Your task to perform on an android device: Search for vegetarian restaurants on Maps Image 0: 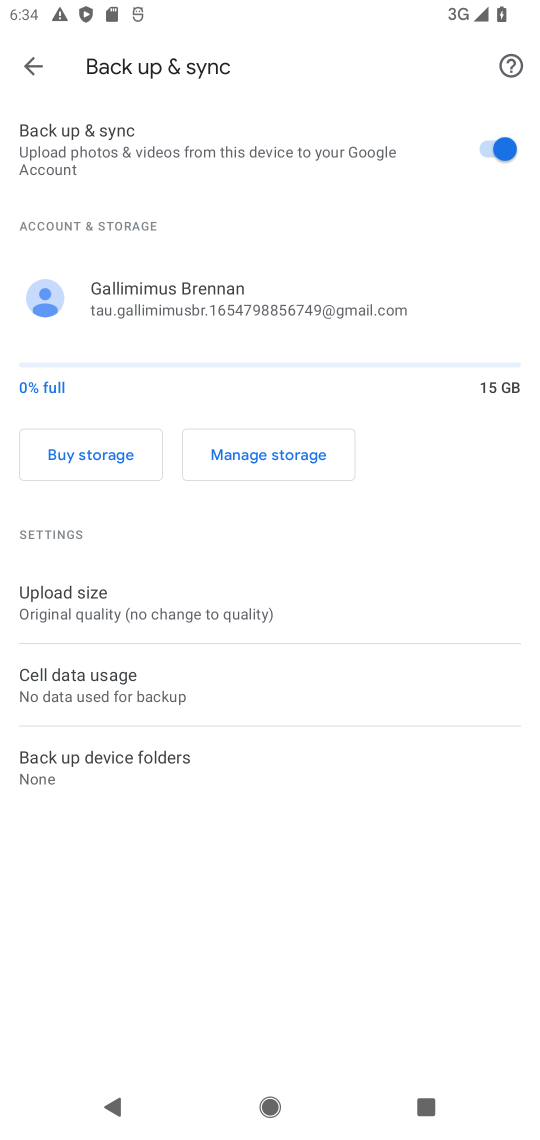
Step 0: press back button
Your task to perform on an android device: Search for vegetarian restaurants on Maps Image 1: 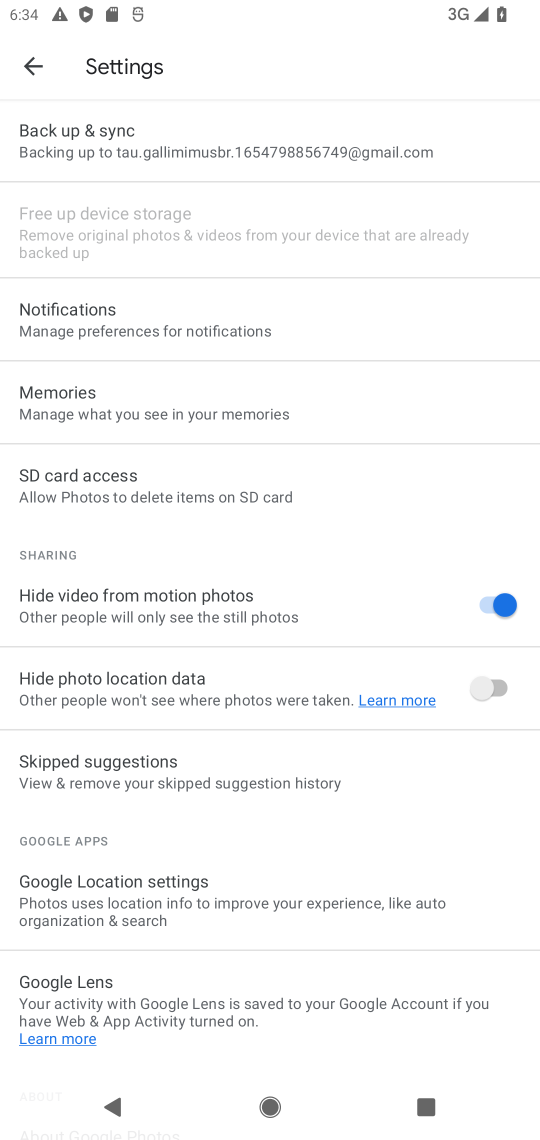
Step 1: press home button
Your task to perform on an android device: Search for vegetarian restaurants on Maps Image 2: 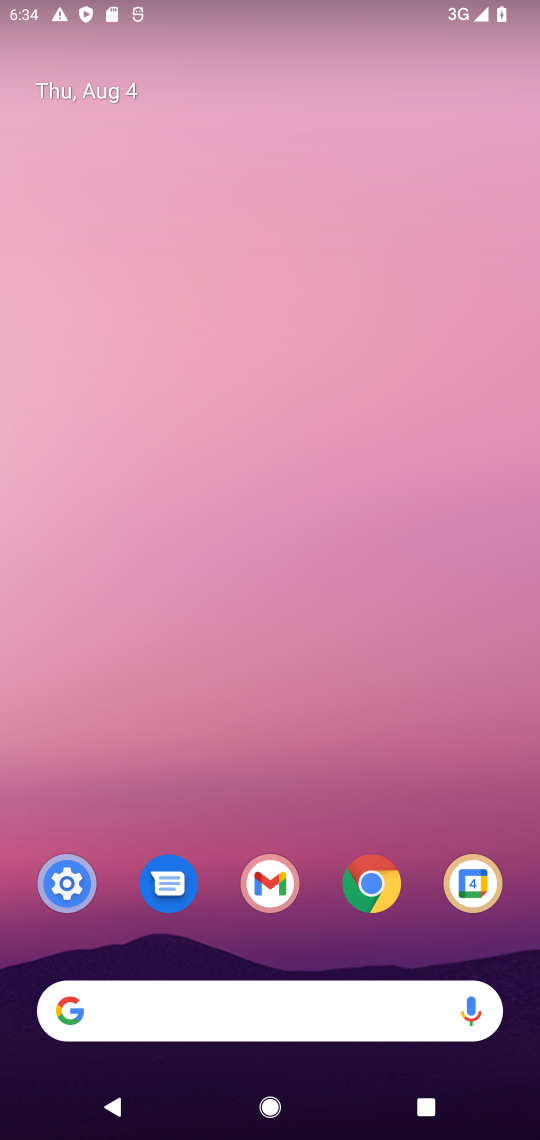
Step 2: drag from (428, 839) to (356, 35)
Your task to perform on an android device: Search for vegetarian restaurants on Maps Image 3: 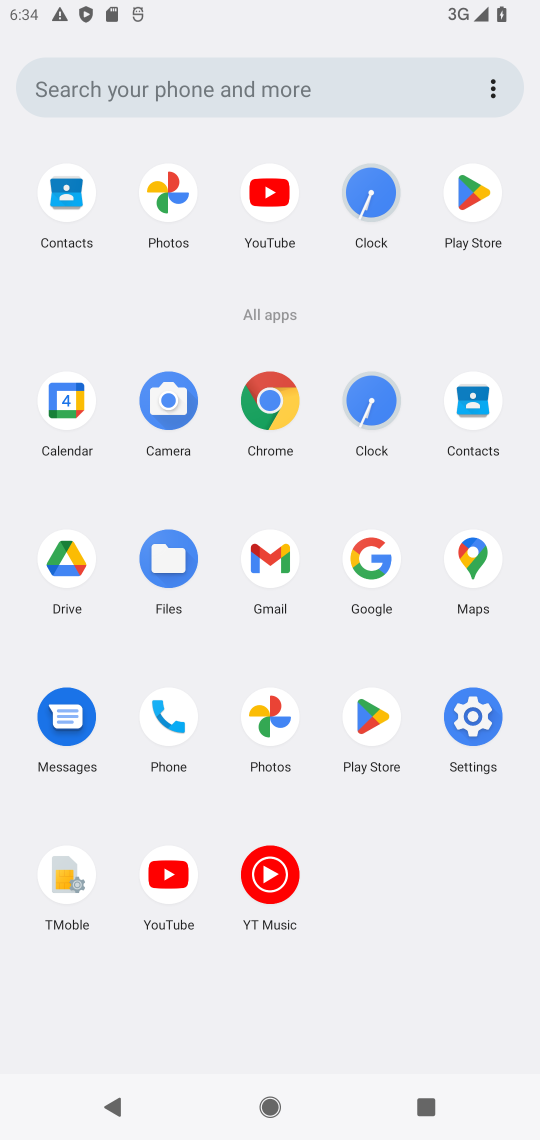
Step 3: click (484, 563)
Your task to perform on an android device: Search for vegetarian restaurants on Maps Image 4: 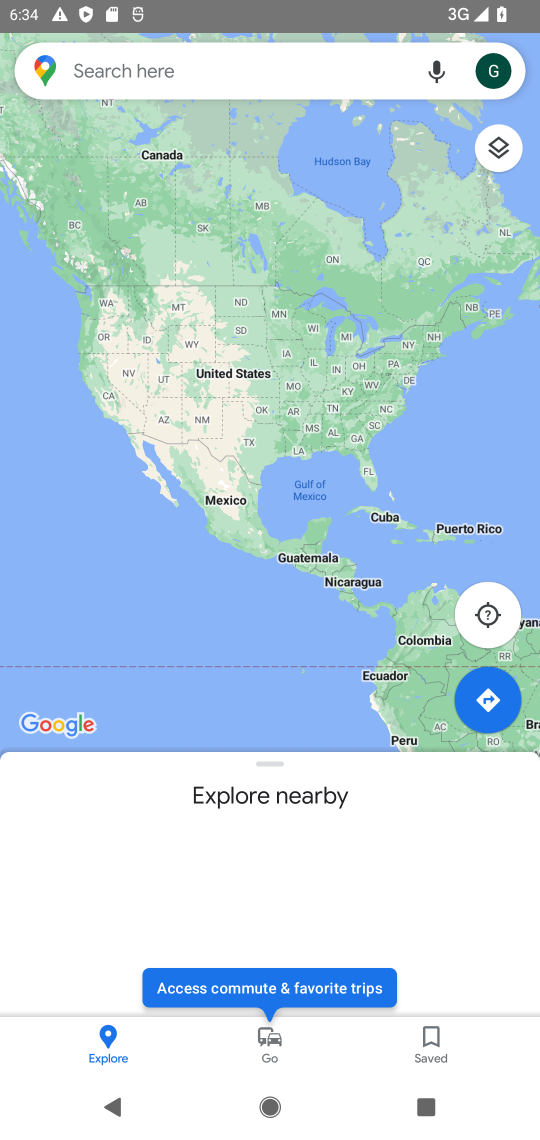
Step 4: click (216, 94)
Your task to perform on an android device: Search for vegetarian restaurants on Maps Image 5: 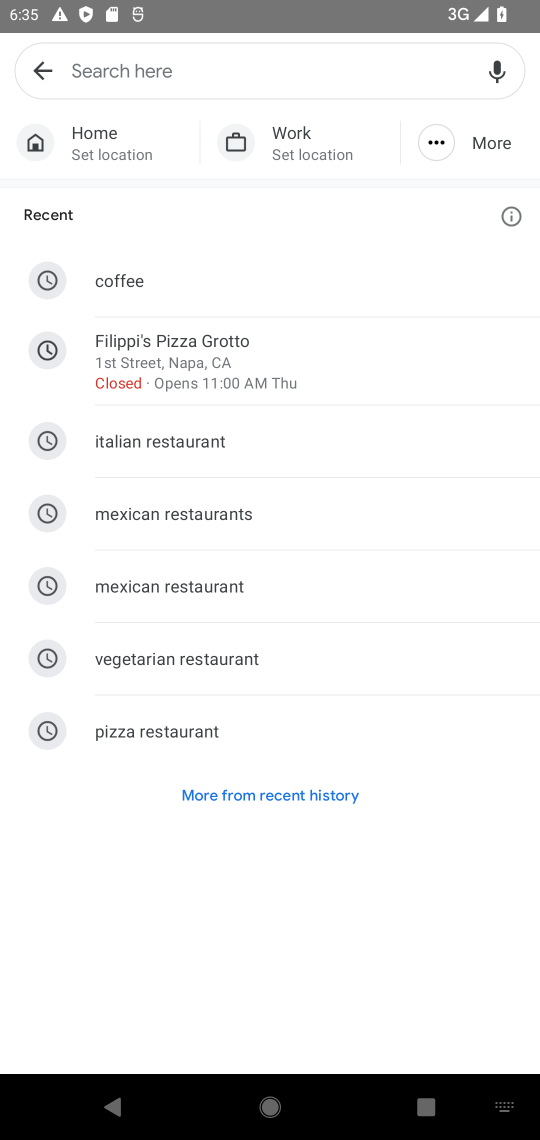
Step 5: click (401, 650)
Your task to perform on an android device: Search for vegetarian restaurants on Maps Image 6: 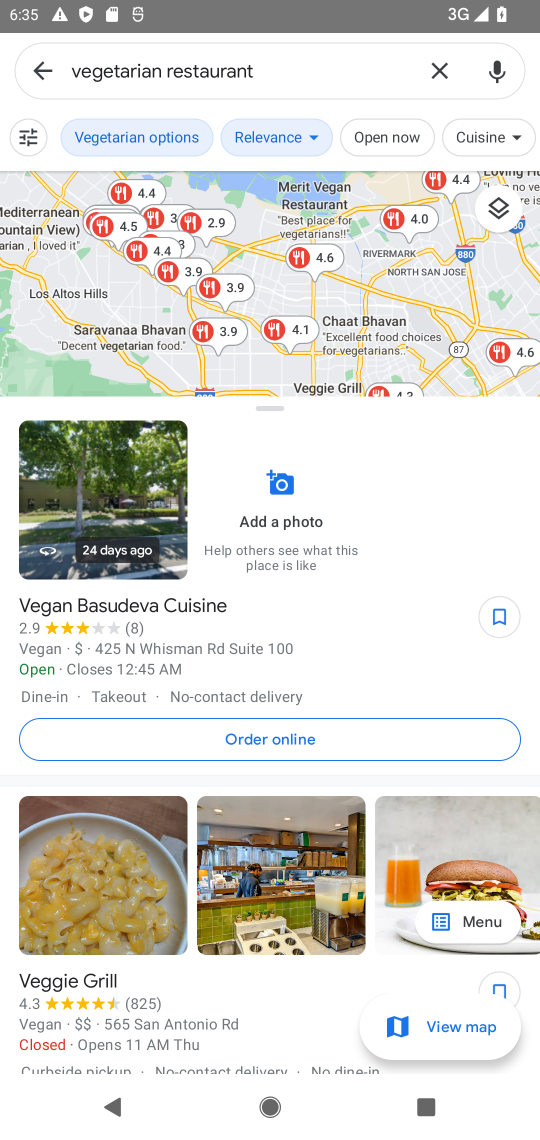
Step 6: task complete